Your task to perform on an android device: Clear the shopping cart on walmart. Search for razer blade on walmart, select the first entry, and add it to the cart. Image 0: 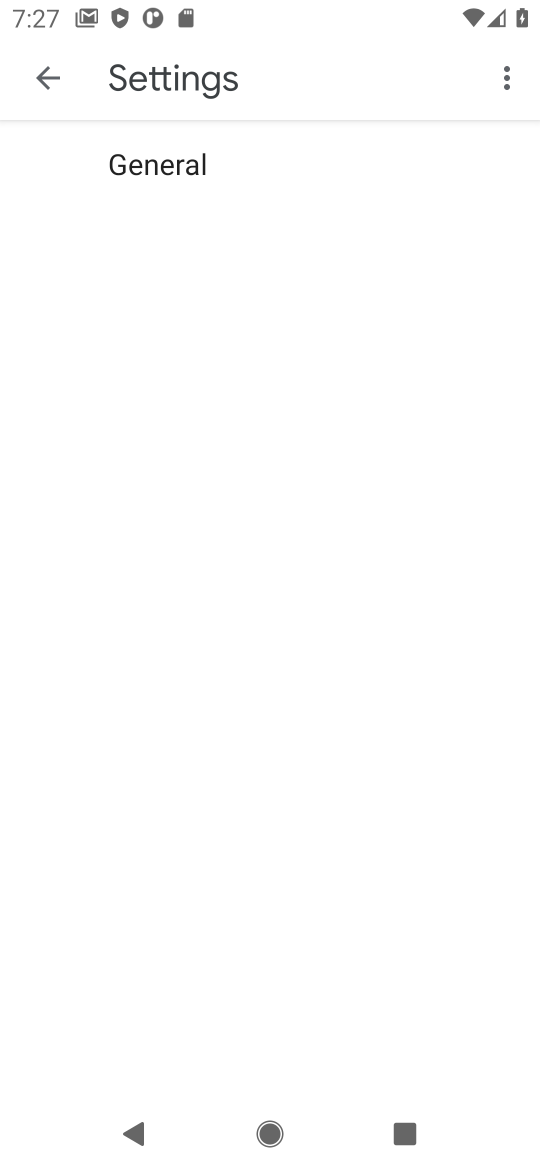
Step 0: press home button
Your task to perform on an android device: Clear the shopping cart on walmart. Search for razer blade on walmart, select the first entry, and add it to the cart. Image 1: 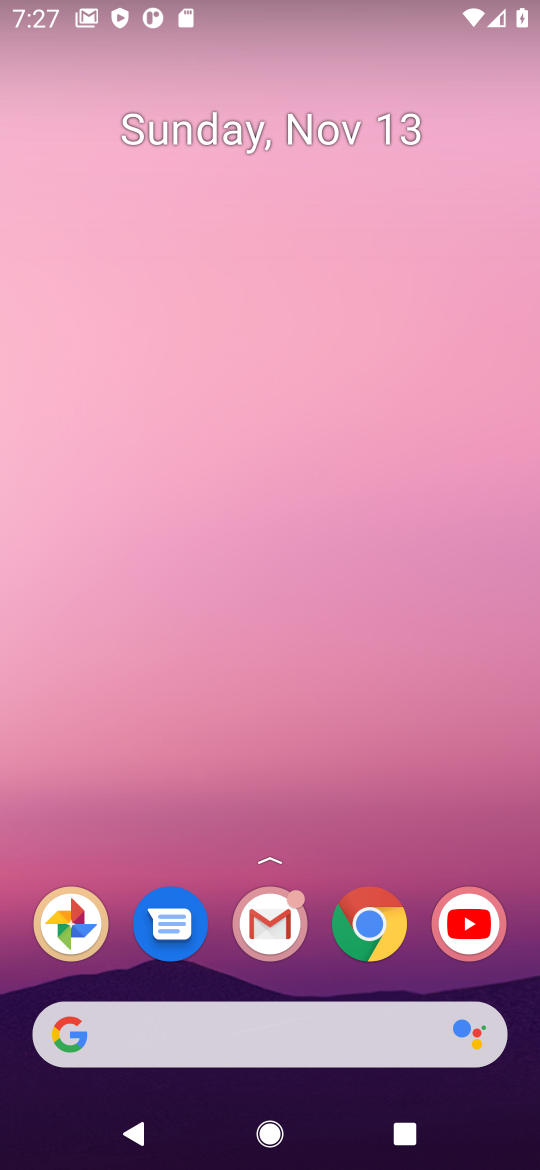
Step 1: click (370, 926)
Your task to perform on an android device: Clear the shopping cart on walmart. Search for razer blade on walmart, select the first entry, and add it to the cart. Image 2: 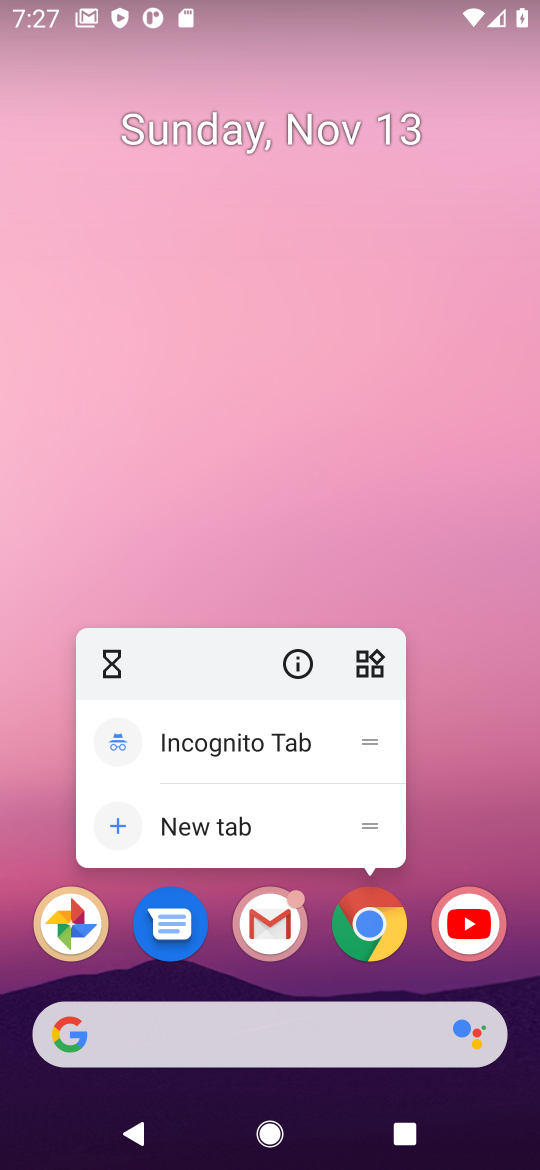
Step 2: click (370, 929)
Your task to perform on an android device: Clear the shopping cart on walmart. Search for razer blade on walmart, select the first entry, and add it to the cart. Image 3: 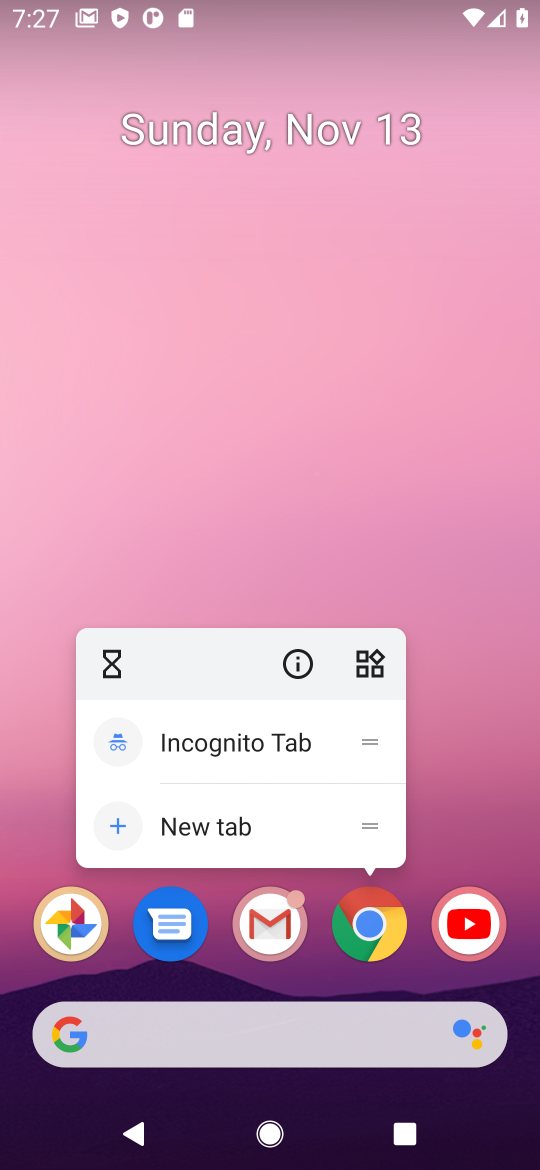
Step 3: click (379, 927)
Your task to perform on an android device: Clear the shopping cart on walmart. Search for razer blade on walmart, select the first entry, and add it to the cart. Image 4: 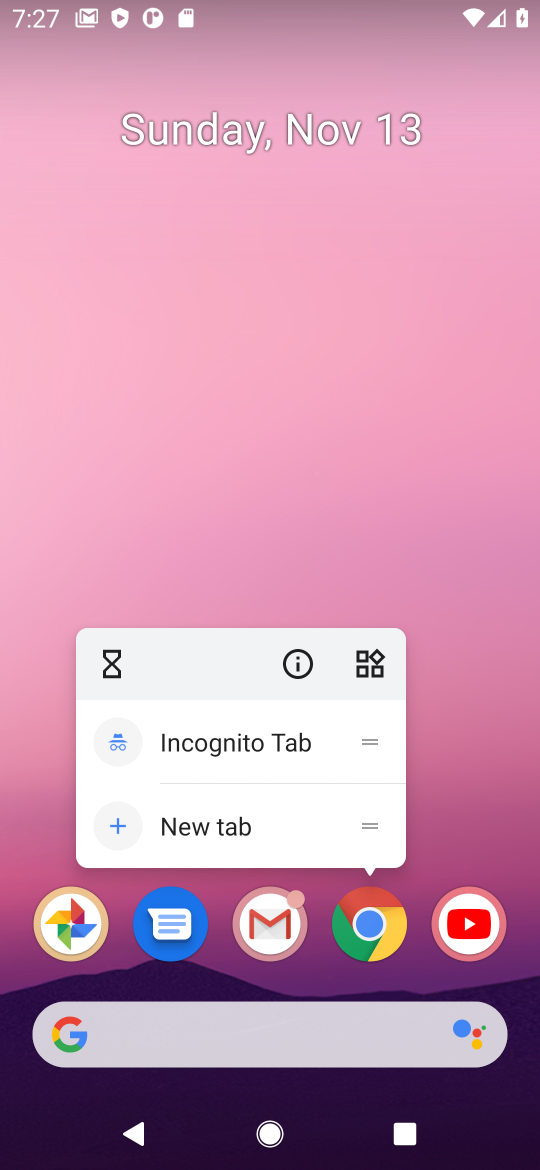
Step 4: click (379, 931)
Your task to perform on an android device: Clear the shopping cart on walmart. Search for razer blade on walmart, select the first entry, and add it to the cart. Image 5: 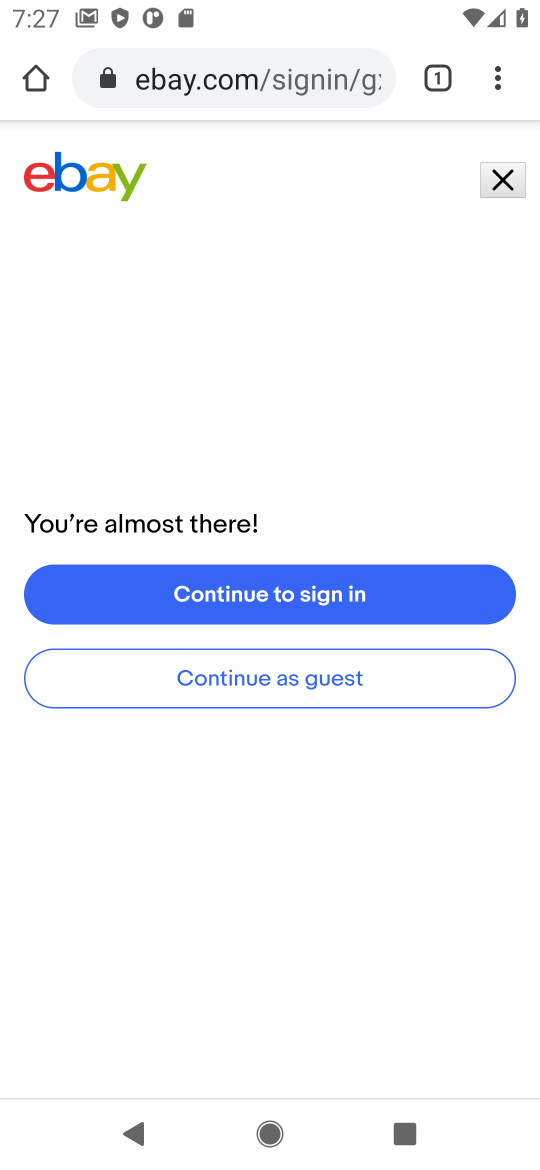
Step 5: click (308, 82)
Your task to perform on an android device: Clear the shopping cart on walmart. Search for razer blade on walmart, select the first entry, and add it to the cart. Image 6: 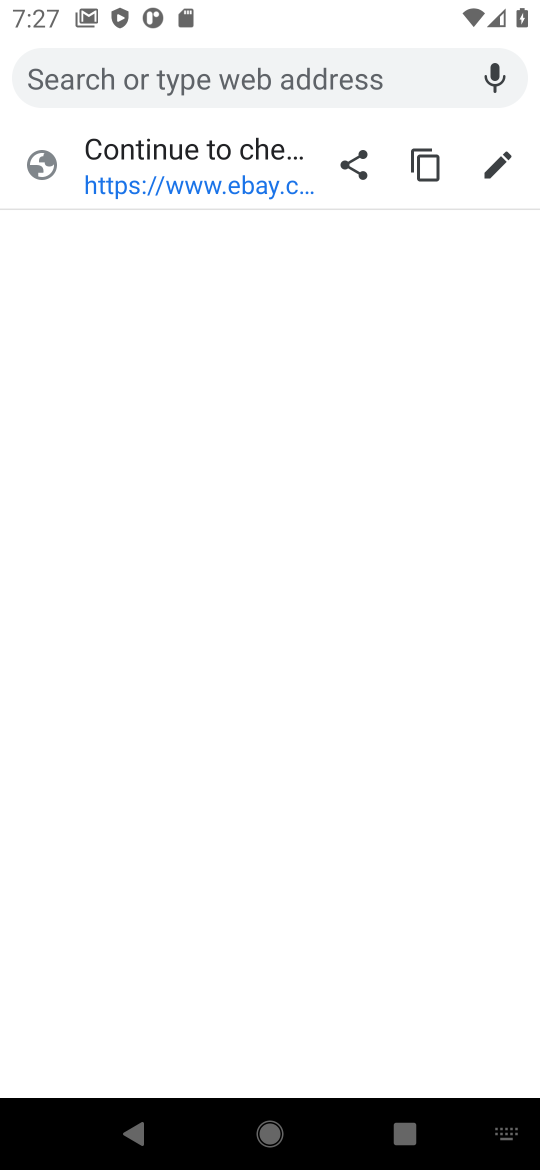
Step 6: type " walmart"
Your task to perform on an android device: Clear the shopping cart on walmart. Search for razer blade on walmart, select the first entry, and add it to the cart. Image 7: 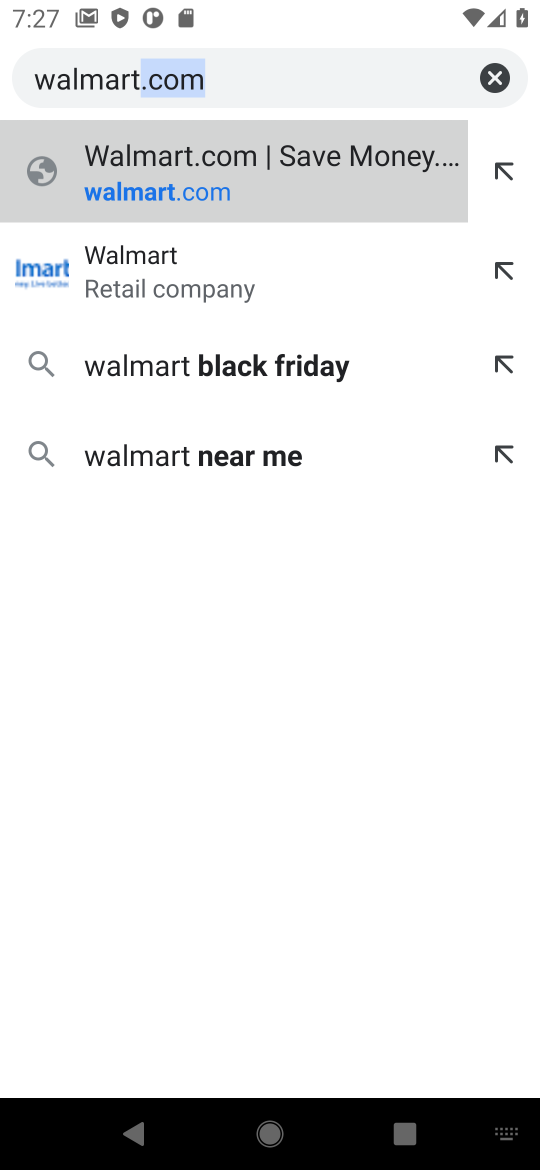
Step 7: press enter
Your task to perform on an android device: Clear the shopping cart on walmart. Search for razer blade on walmart, select the first entry, and add it to the cart. Image 8: 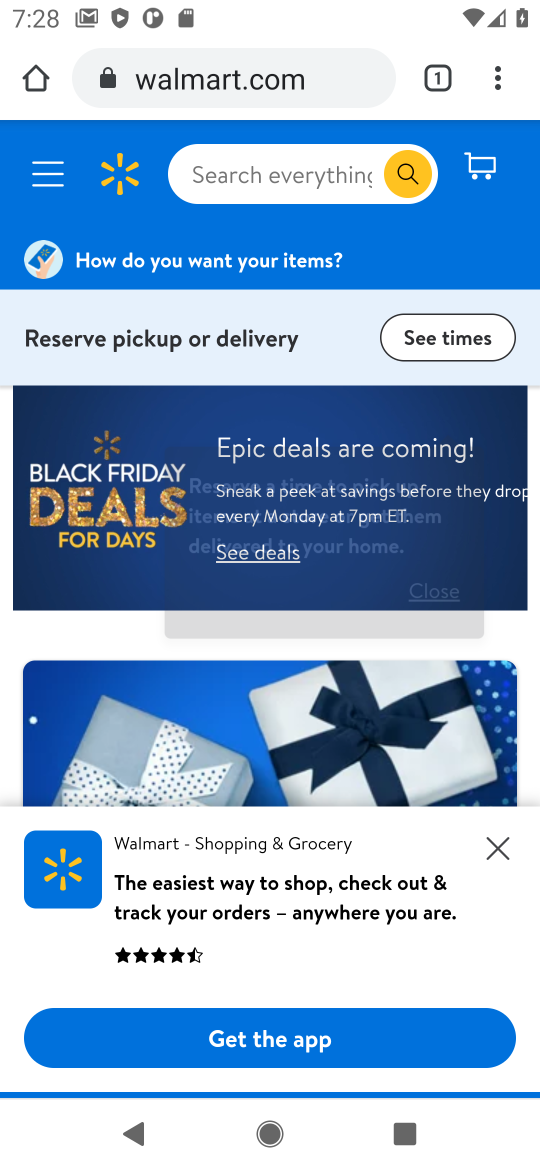
Step 8: click (236, 170)
Your task to perform on an android device: Clear the shopping cart on walmart. Search for razer blade on walmart, select the first entry, and add it to the cart. Image 9: 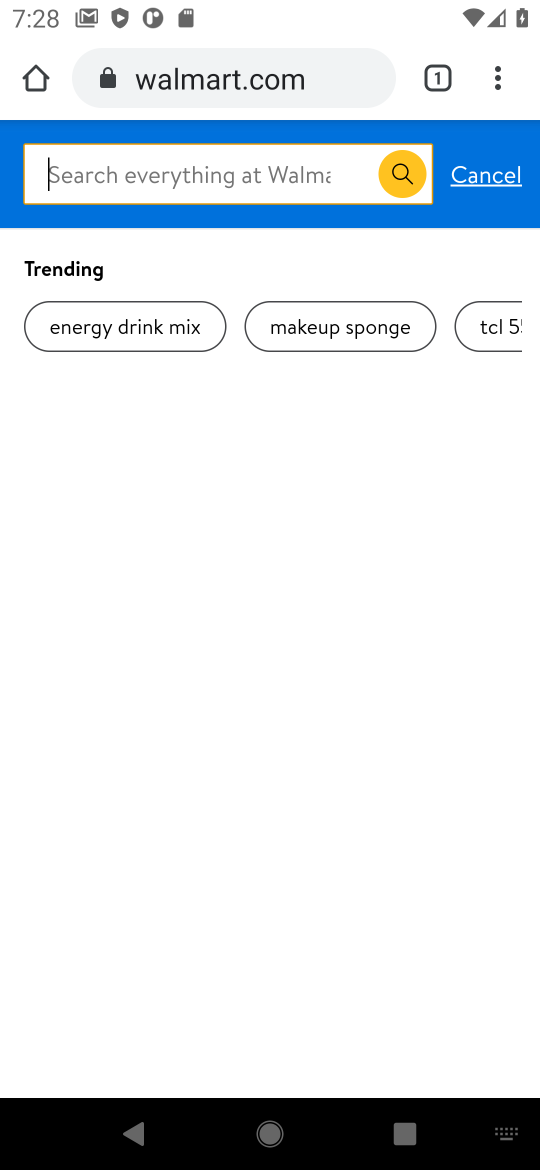
Step 9: type "razer blade"
Your task to perform on an android device: Clear the shopping cart on walmart. Search for razer blade on walmart, select the first entry, and add it to the cart. Image 10: 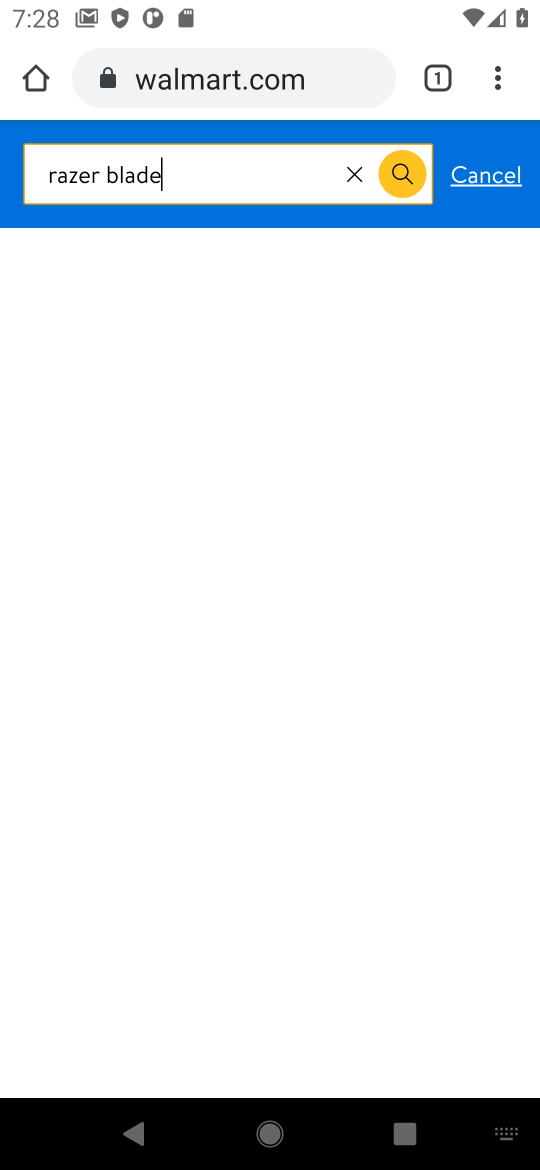
Step 10: press enter
Your task to perform on an android device: Clear the shopping cart on walmart. Search for razer blade on walmart, select the first entry, and add it to the cart. Image 11: 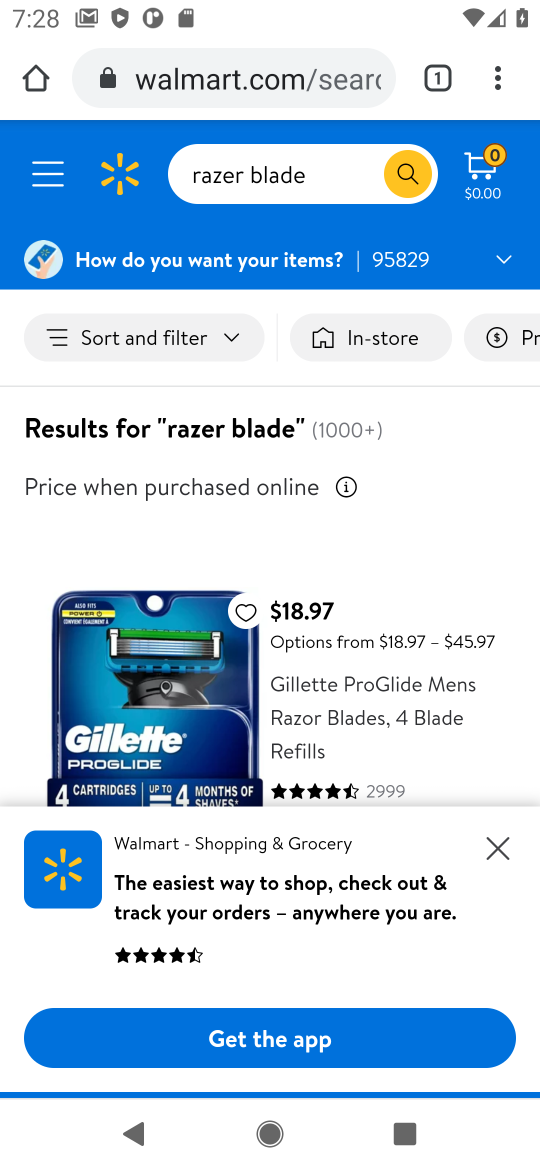
Step 11: click (494, 845)
Your task to perform on an android device: Clear the shopping cart on walmart. Search for razer blade on walmart, select the first entry, and add it to the cart. Image 12: 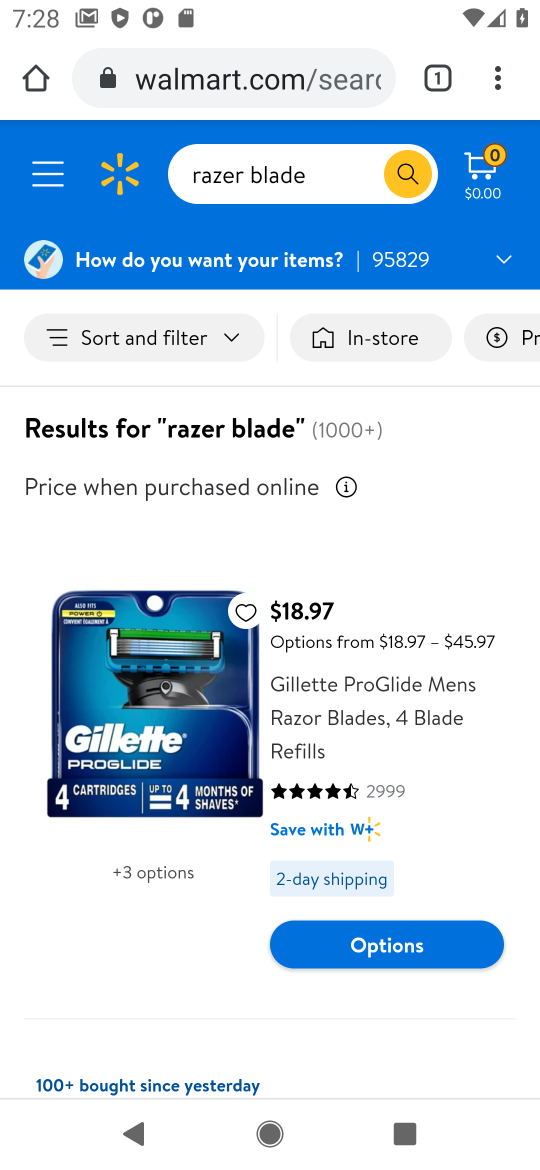
Step 12: task complete